Your task to perform on an android device: Go to Google Image 0: 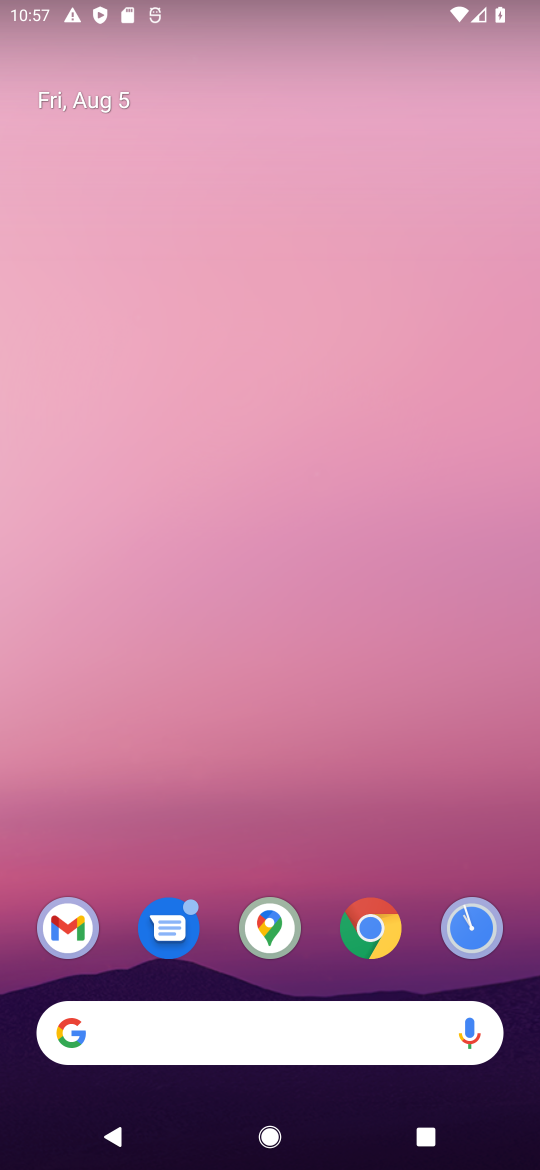
Step 0: drag from (263, 974) to (195, 16)
Your task to perform on an android device: Go to Google Image 1: 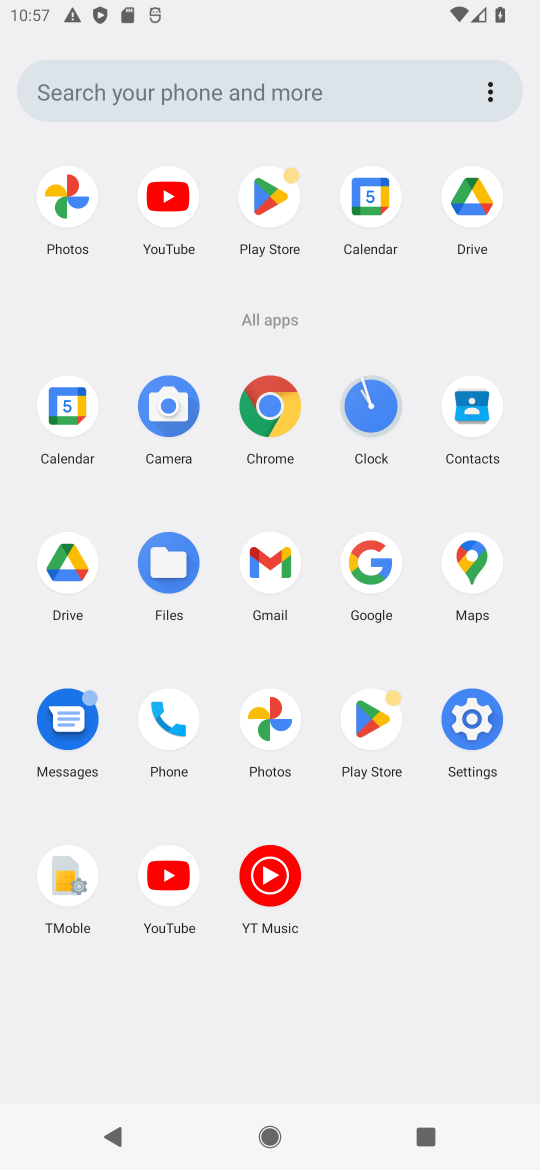
Step 1: click (385, 581)
Your task to perform on an android device: Go to Google Image 2: 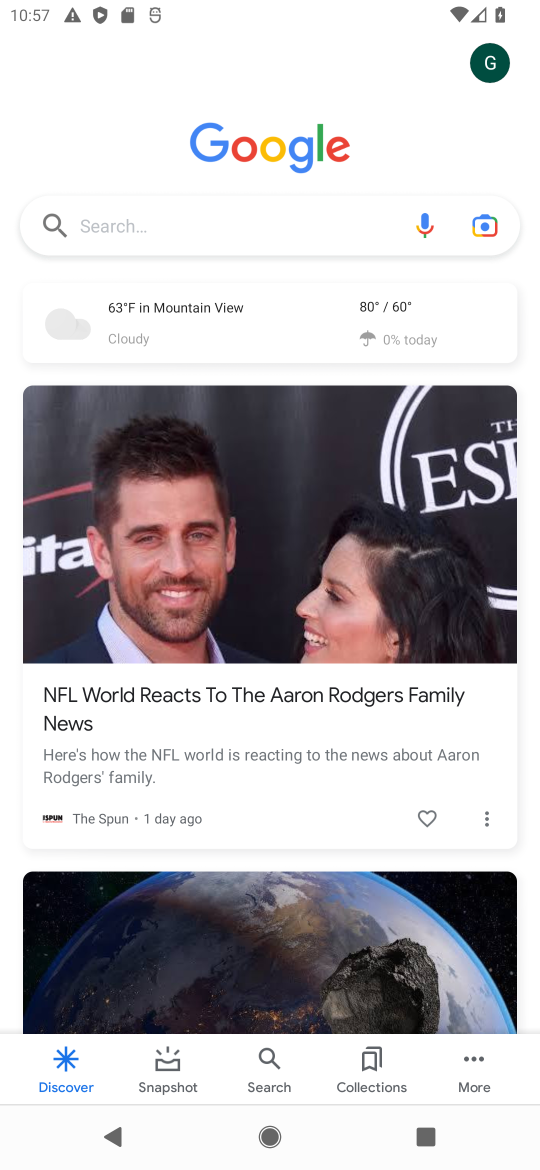
Step 2: task complete